Your task to perform on an android device: manage bookmarks in the chrome app Image 0: 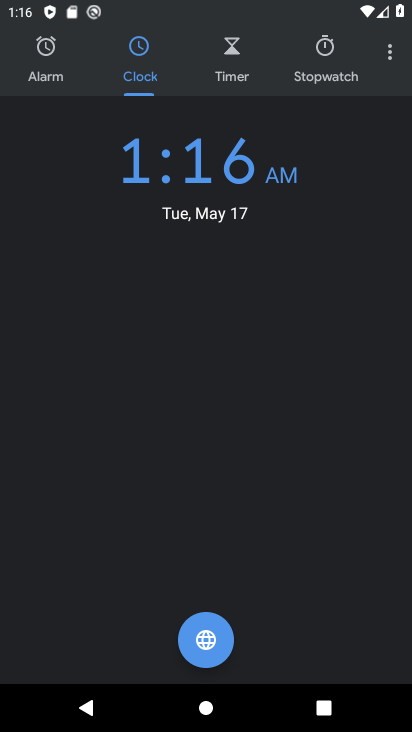
Step 0: press home button
Your task to perform on an android device: manage bookmarks in the chrome app Image 1: 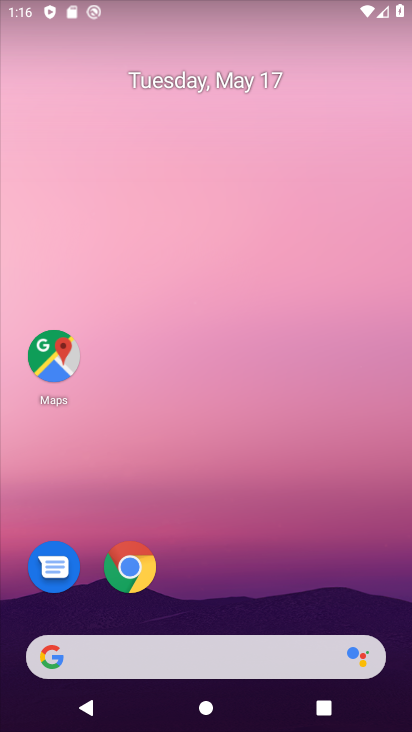
Step 1: click (137, 564)
Your task to perform on an android device: manage bookmarks in the chrome app Image 2: 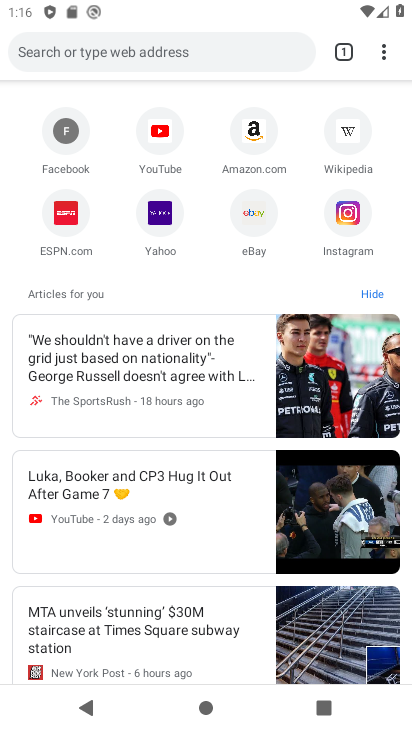
Step 2: click (382, 57)
Your task to perform on an android device: manage bookmarks in the chrome app Image 3: 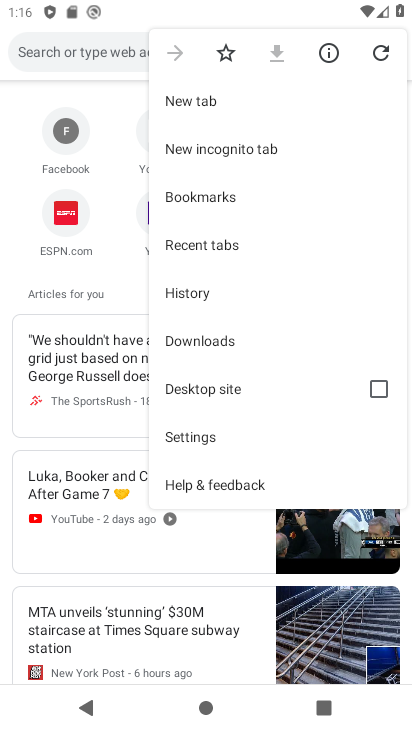
Step 3: click (191, 200)
Your task to perform on an android device: manage bookmarks in the chrome app Image 4: 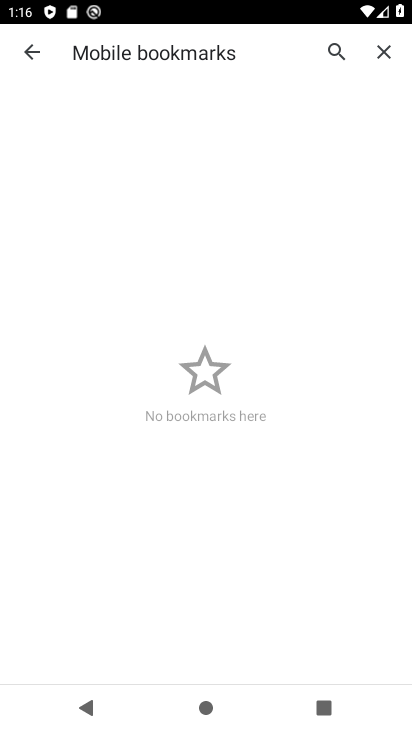
Step 4: task complete